Your task to perform on an android device: change the clock display to analog Image 0: 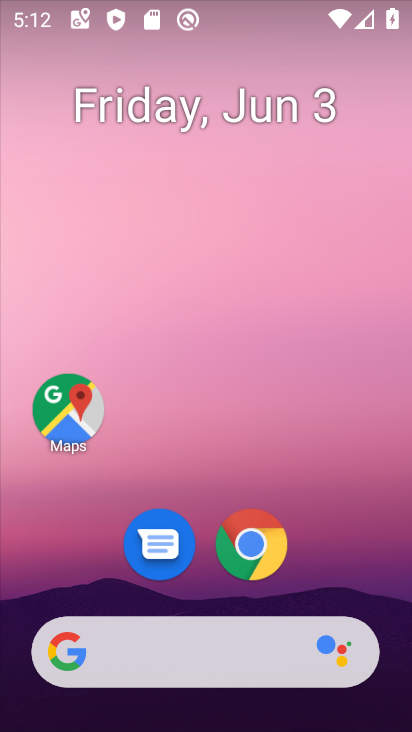
Step 0: drag from (316, 587) to (342, 53)
Your task to perform on an android device: change the clock display to analog Image 1: 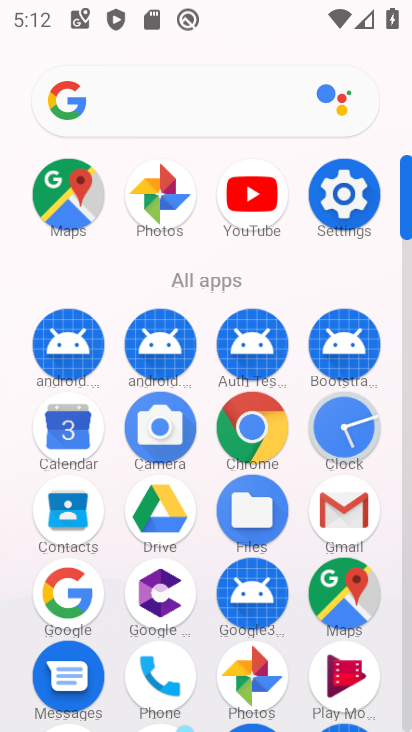
Step 1: click (347, 423)
Your task to perform on an android device: change the clock display to analog Image 2: 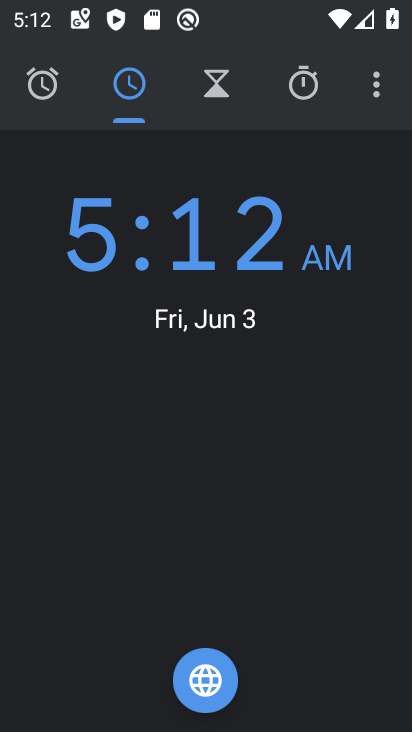
Step 2: click (376, 93)
Your task to perform on an android device: change the clock display to analog Image 3: 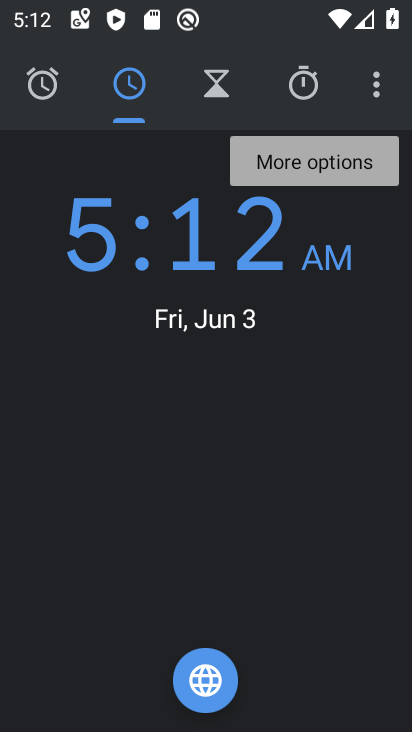
Step 3: click (376, 93)
Your task to perform on an android device: change the clock display to analog Image 4: 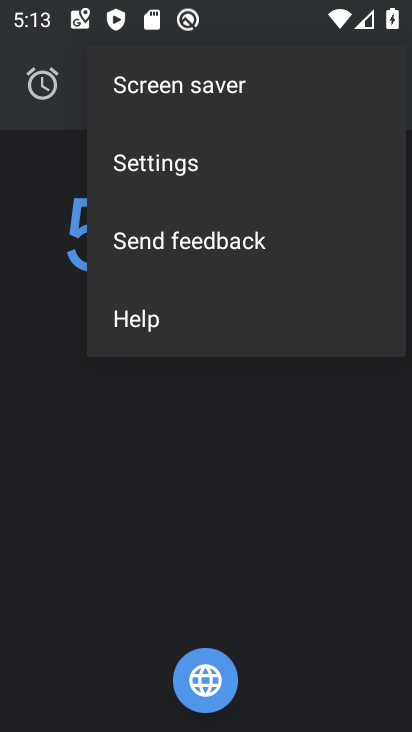
Step 4: click (191, 168)
Your task to perform on an android device: change the clock display to analog Image 5: 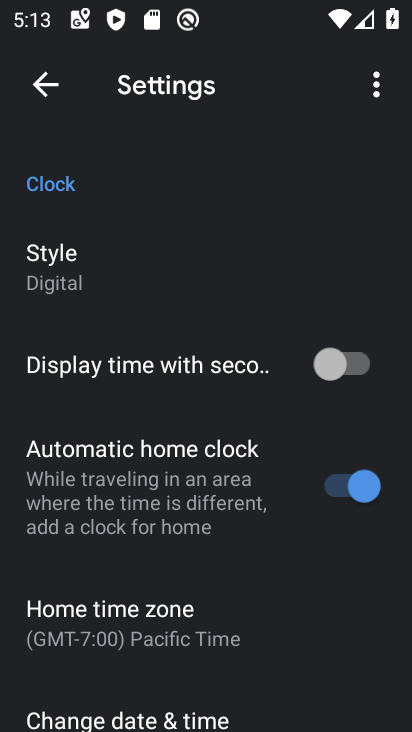
Step 5: click (94, 262)
Your task to perform on an android device: change the clock display to analog Image 6: 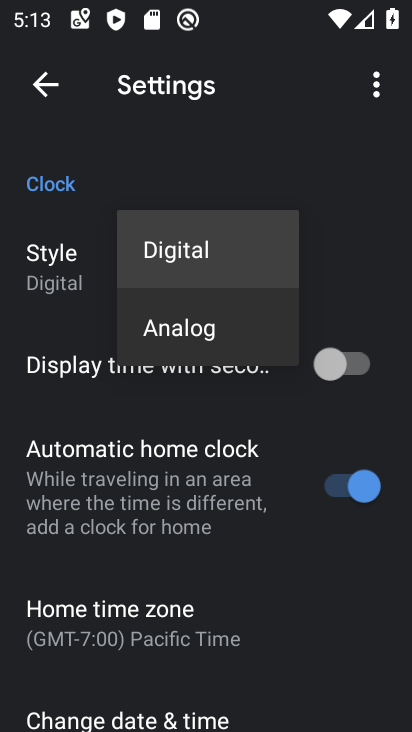
Step 6: click (173, 319)
Your task to perform on an android device: change the clock display to analog Image 7: 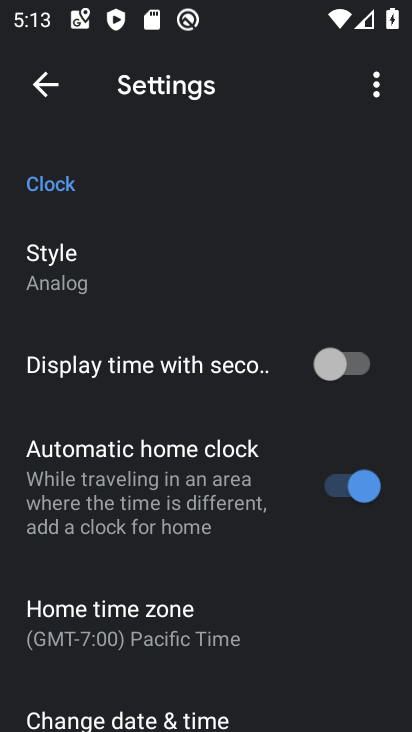
Step 7: task complete